Your task to perform on an android device: allow notifications from all sites in the chrome app Image 0: 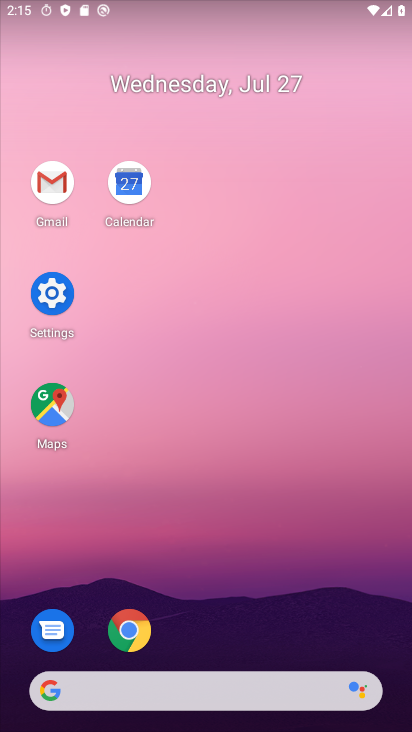
Step 0: click (146, 628)
Your task to perform on an android device: allow notifications from all sites in the chrome app Image 1: 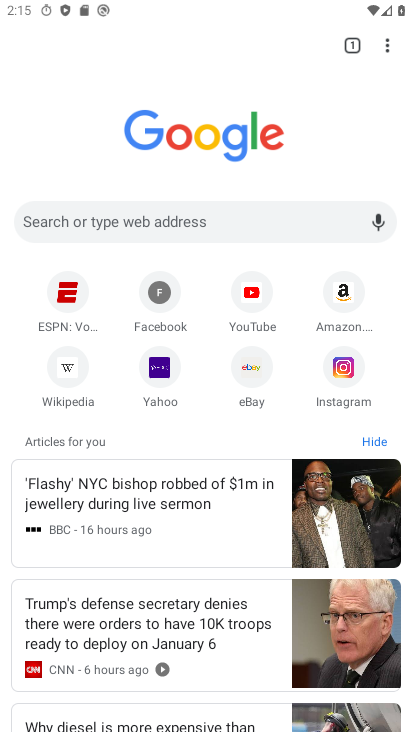
Step 1: click (387, 53)
Your task to perform on an android device: allow notifications from all sites in the chrome app Image 2: 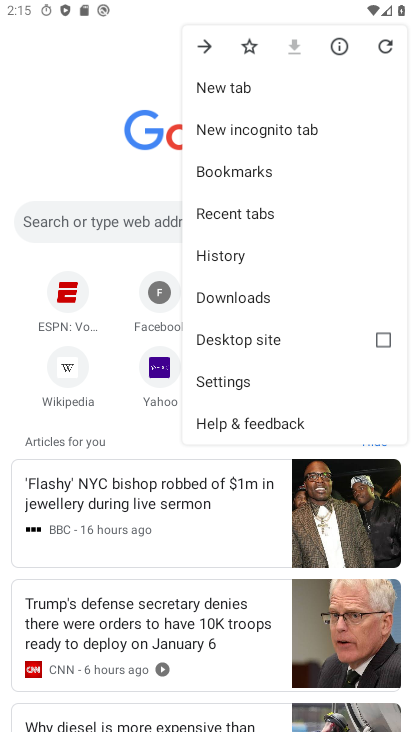
Step 2: click (212, 380)
Your task to perform on an android device: allow notifications from all sites in the chrome app Image 3: 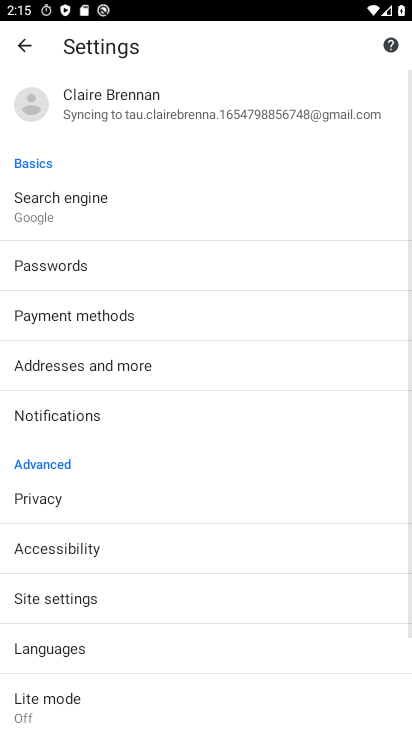
Step 3: click (88, 408)
Your task to perform on an android device: allow notifications from all sites in the chrome app Image 4: 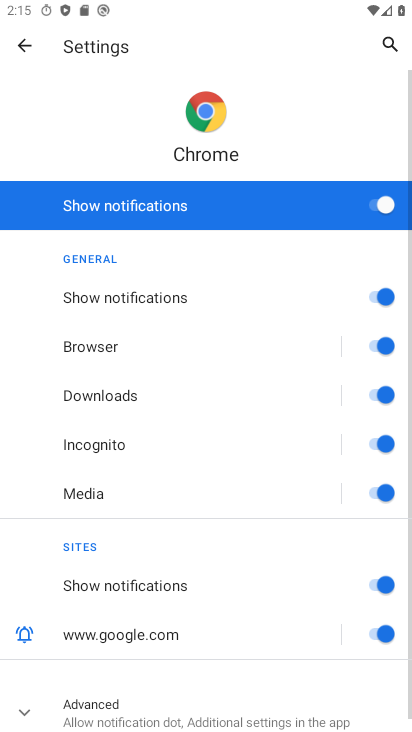
Step 4: task complete